Your task to perform on an android device: find photos in the google photos app Image 0: 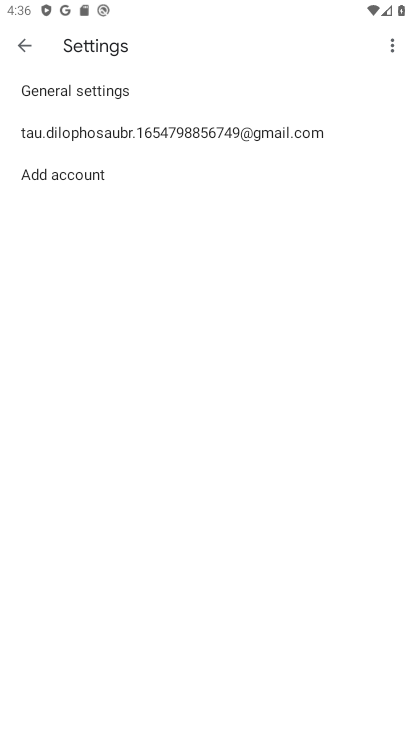
Step 0: press home button
Your task to perform on an android device: find photos in the google photos app Image 1: 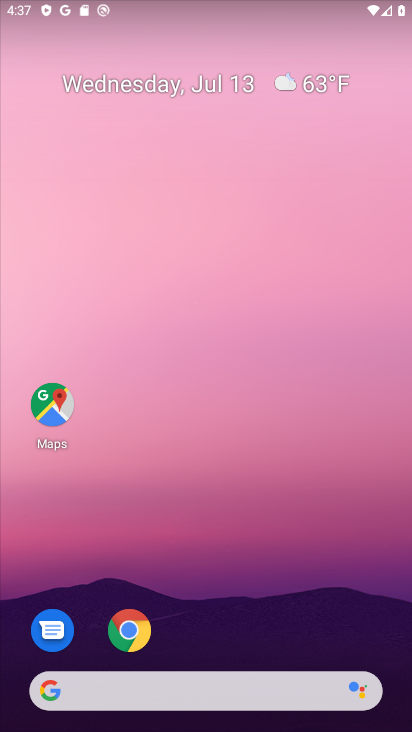
Step 1: drag from (227, 604) to (291, 116)
Your task to perform on an android device: find photos in the google photos app Image 2: 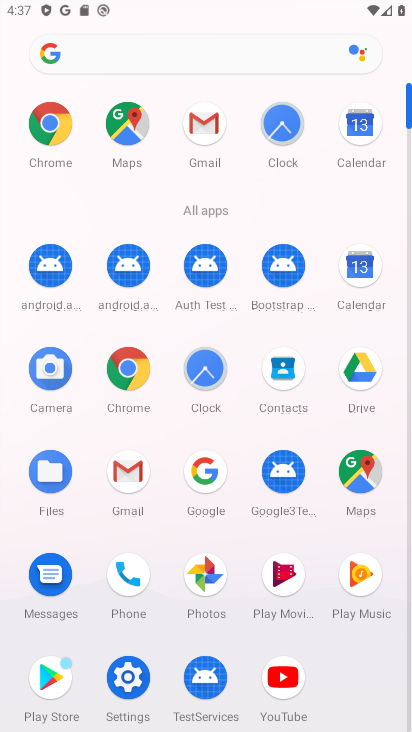
Step 2: click (211, 565)
Your task to perform on an android device: find photos in the google photos app Image 3: 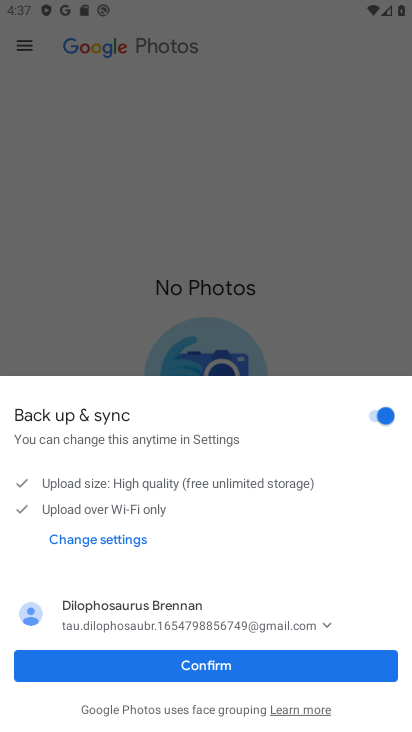
Step 3: click (258, 656)
Your task to perform on an android device: find photos in the google photos app Image 4: 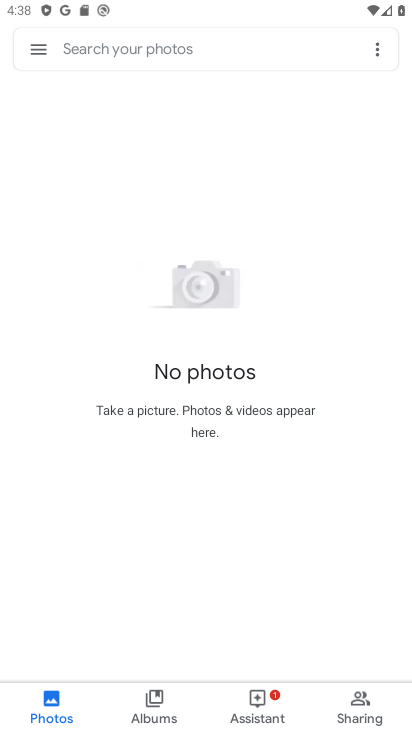
Step 4: click (47, 698)
Your task to perform on an android device: find photos in the google photos app Image 5: 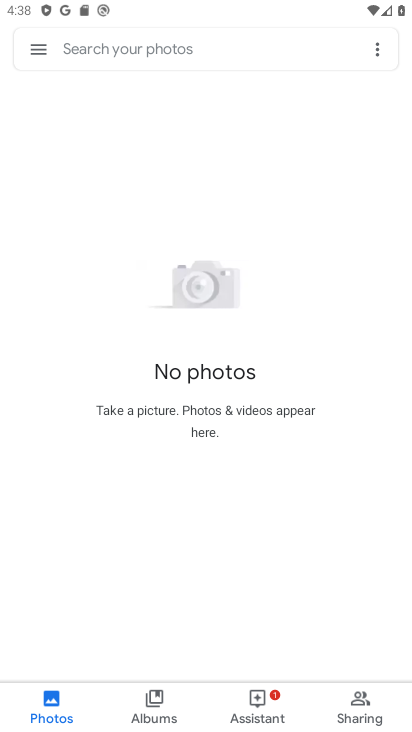
Step 5: task complete